Your task to perform on an android device: Search for vegetarian restaurants on Maps Image 0: 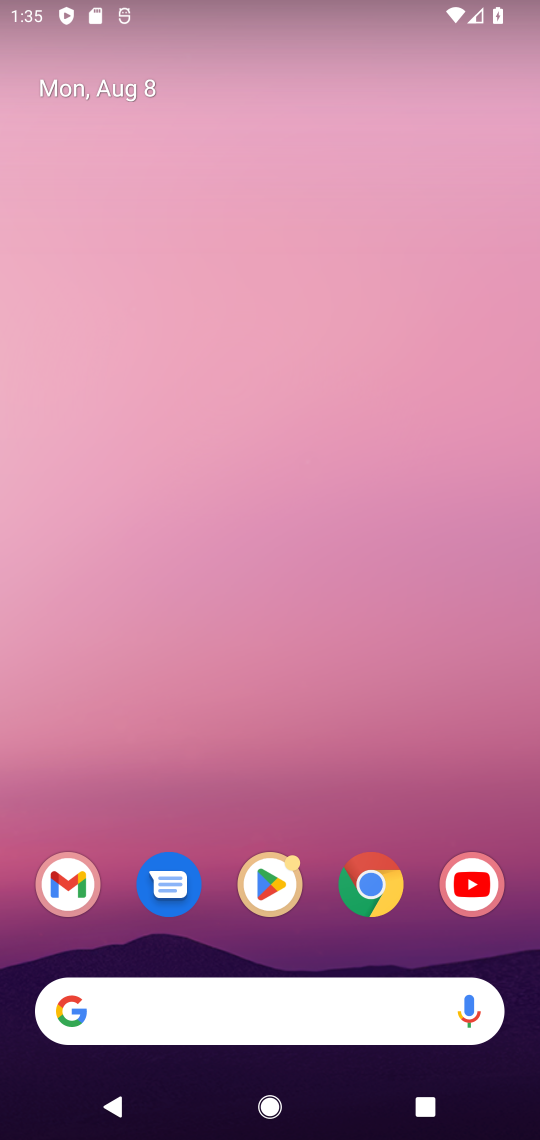
Step 0: drag from (302, 762) to (221, 158)
Your task to perform on an android device: Search for vegetarian restaurants on Maps Image 1: 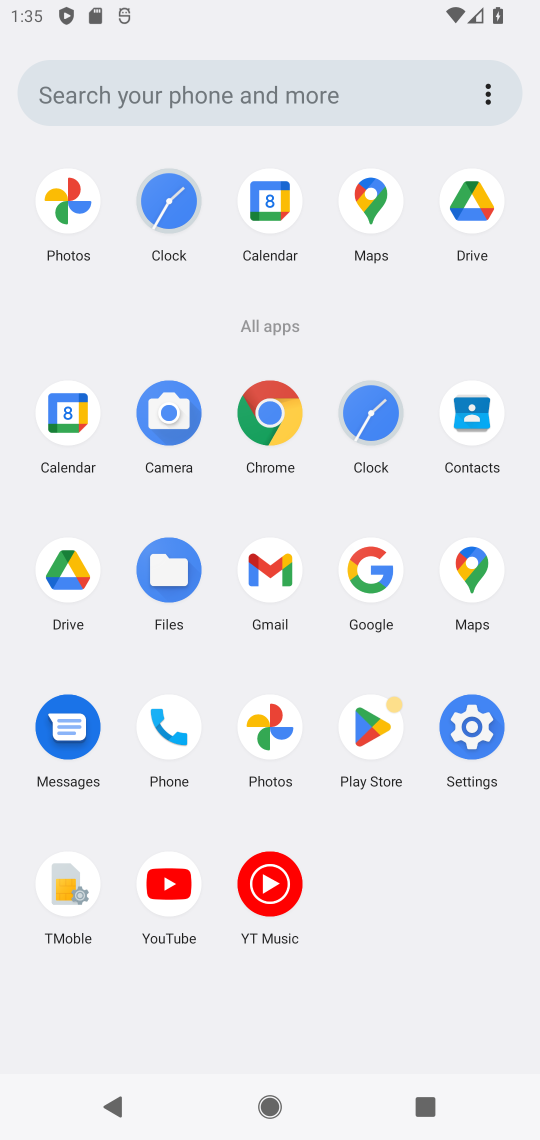
Step 1: click (482, 562)
Your task to perform on an android device: Search for vegetarian restaurants on Maps Image 2: 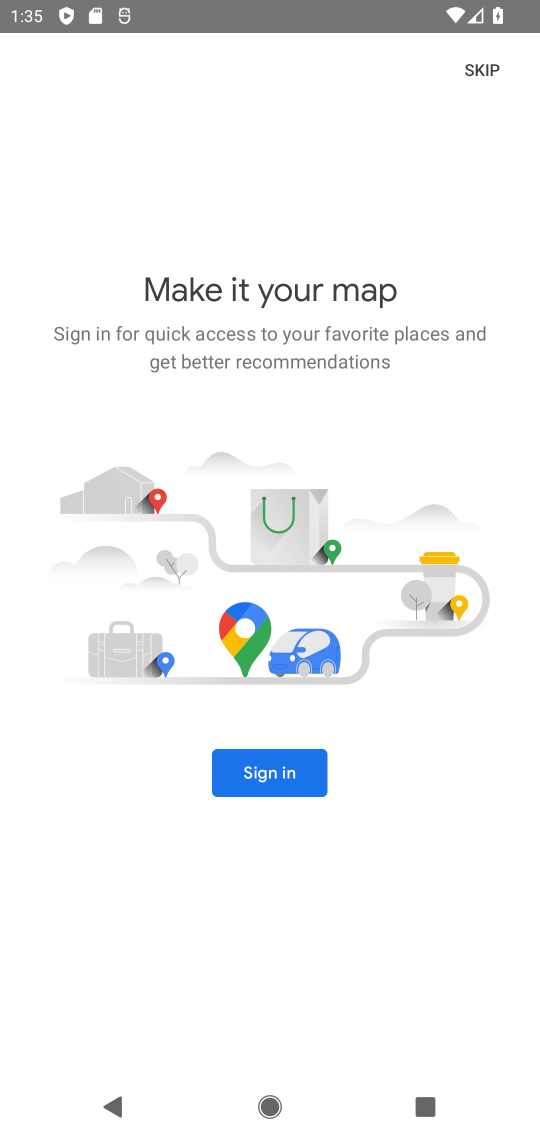
Step 2: click (489, 71)
Your task to perform on an android device: Search for vegetarian restaurants on Maps Image 3: 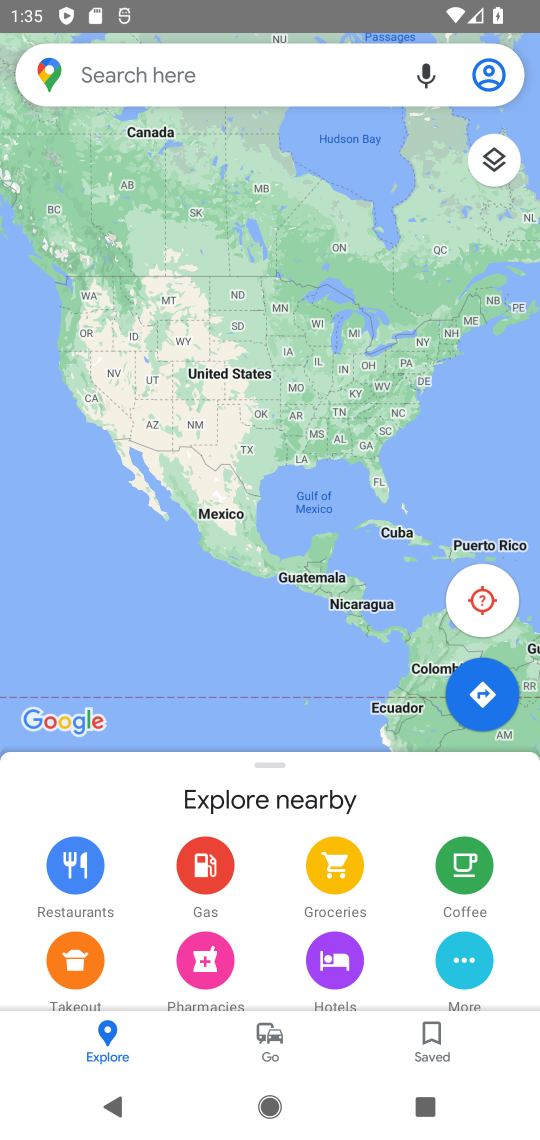
Step 3: click (145, 69)
Your task to perform on an android device: Search for vegetarian restaurants on Maps Image 4: 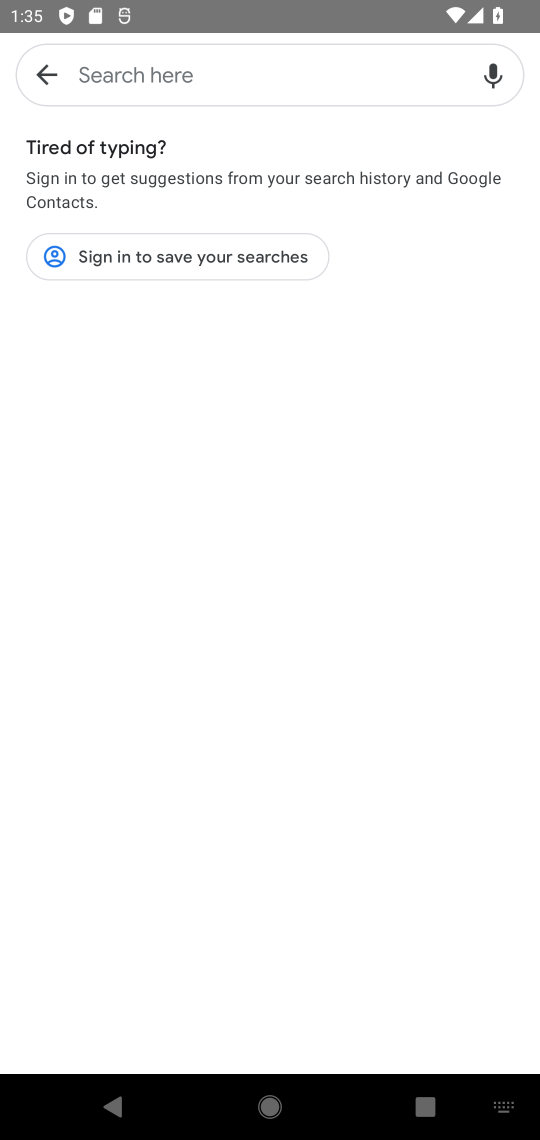
Step 4: type "vegetarian restaurants"
Your task to perform on an android device: Search for vegetarian restaurants on Maps Image 5: 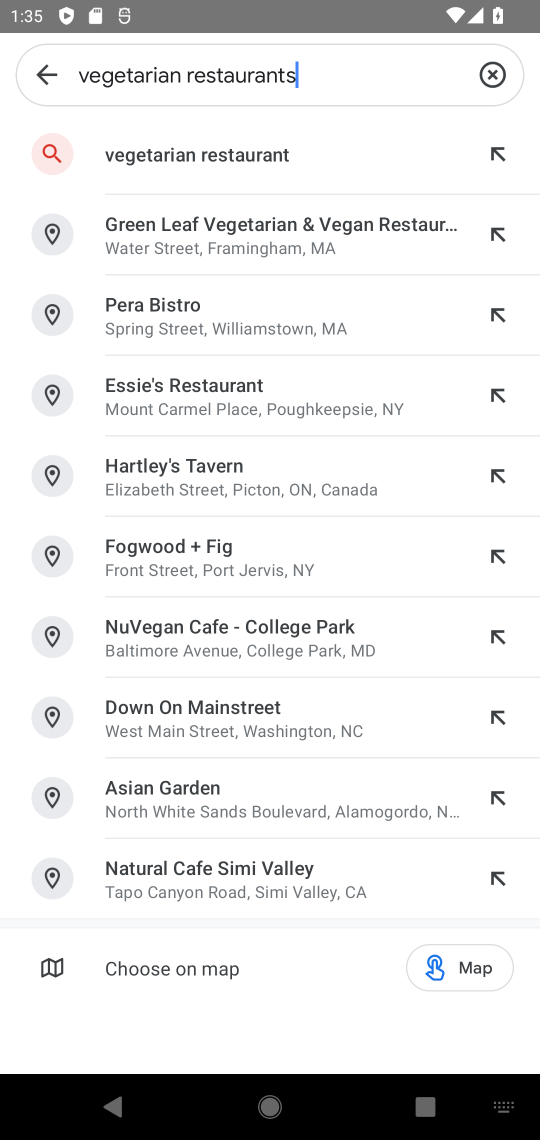
Step 5: click (255, 150)
Your task to perform on an android device: Search for vegetarian restaurants on Maps Image 6: 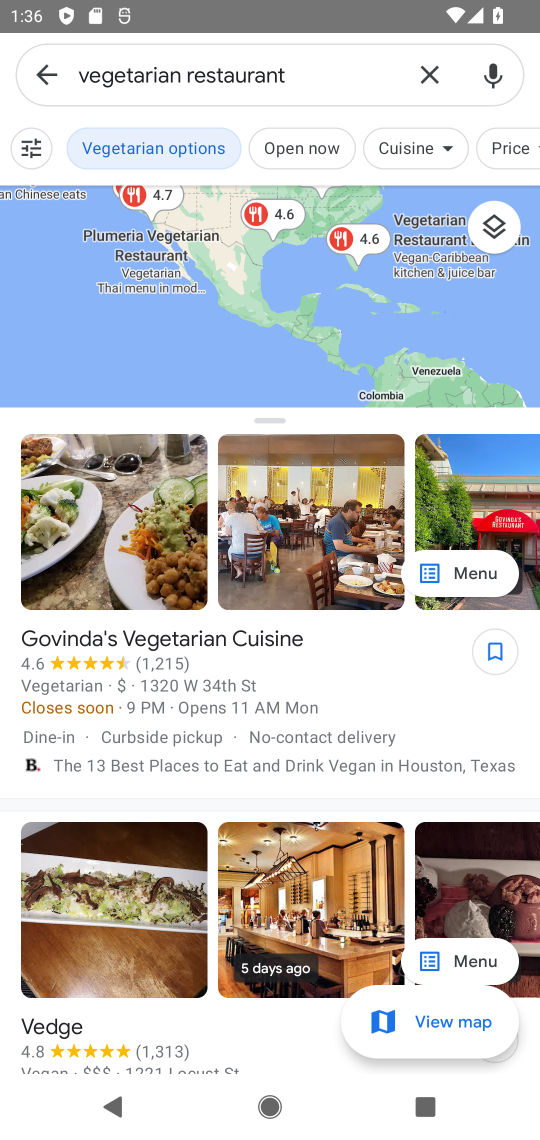
Step 6: task complete